Your task to perform on an android device: toggle location history Image 0: 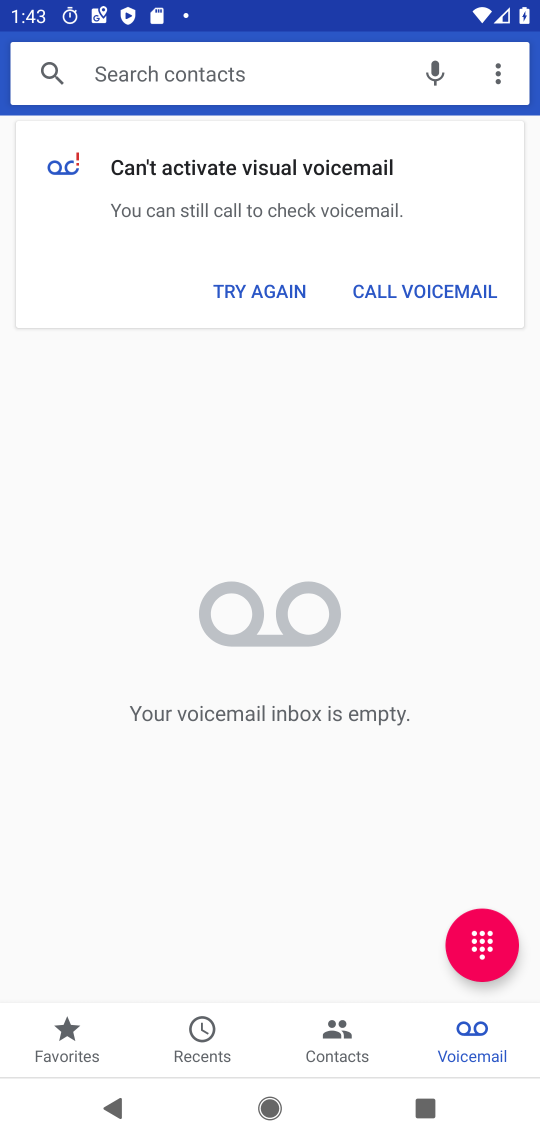
Step 0: press home button
Your task to perform on an android device: toggle location history Image 1: 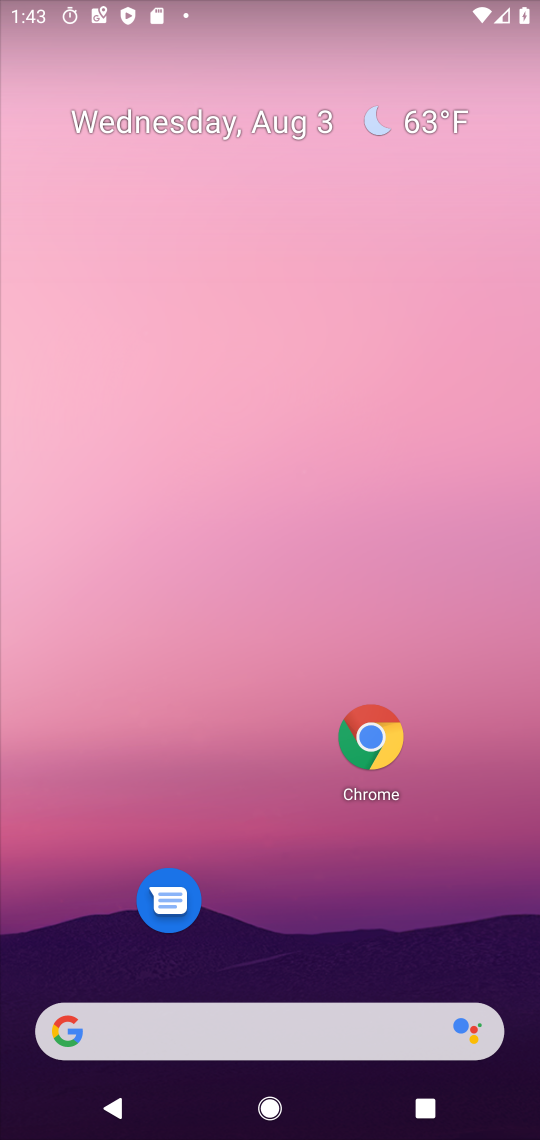
Step 1: drag from (238, 904) to (322, 191)
Your task to perform on an android device: toggle location history Image 2: 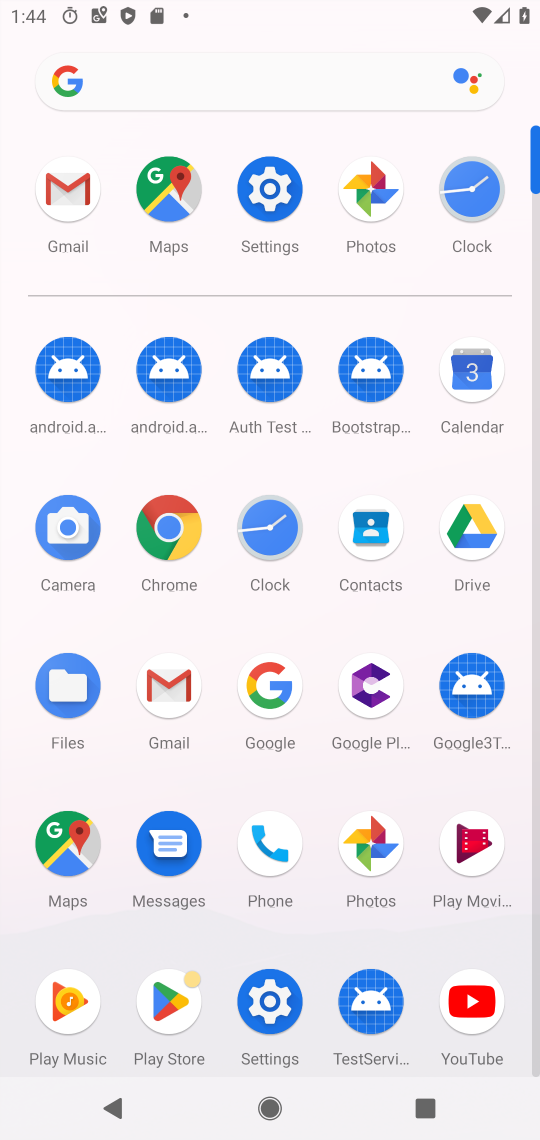
Step 2: click (286, 202)
Your task to perform on an android device: toggle location history Image 3: 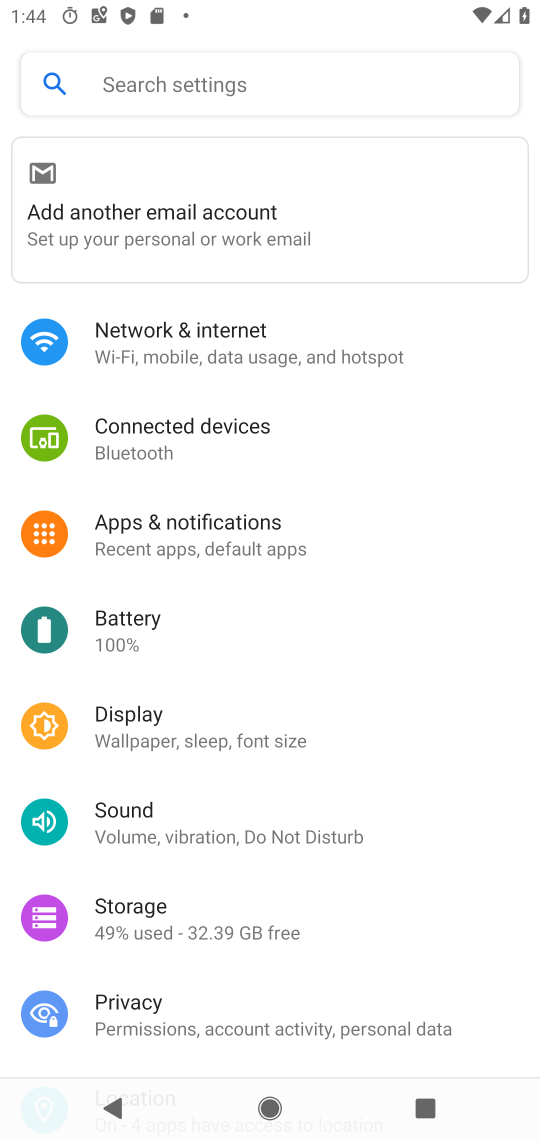
Step 3: drag from (424, 996) to (439, 354)
Your task to perform on an android device: toggle location history Image 4: 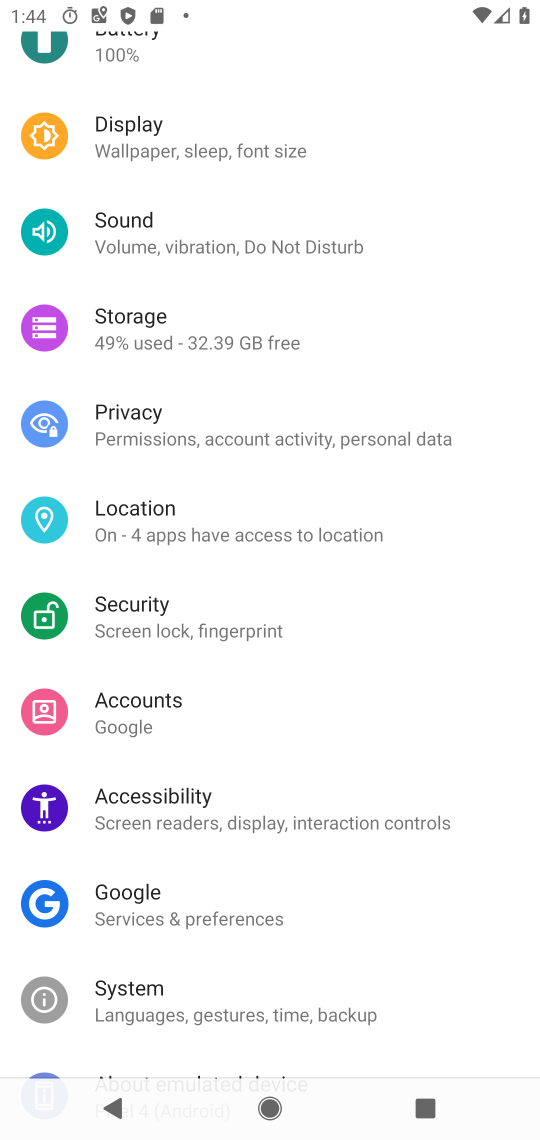
Step 4: click (206, 535)
Your task to perform on an android device: toggle location history Image 5: 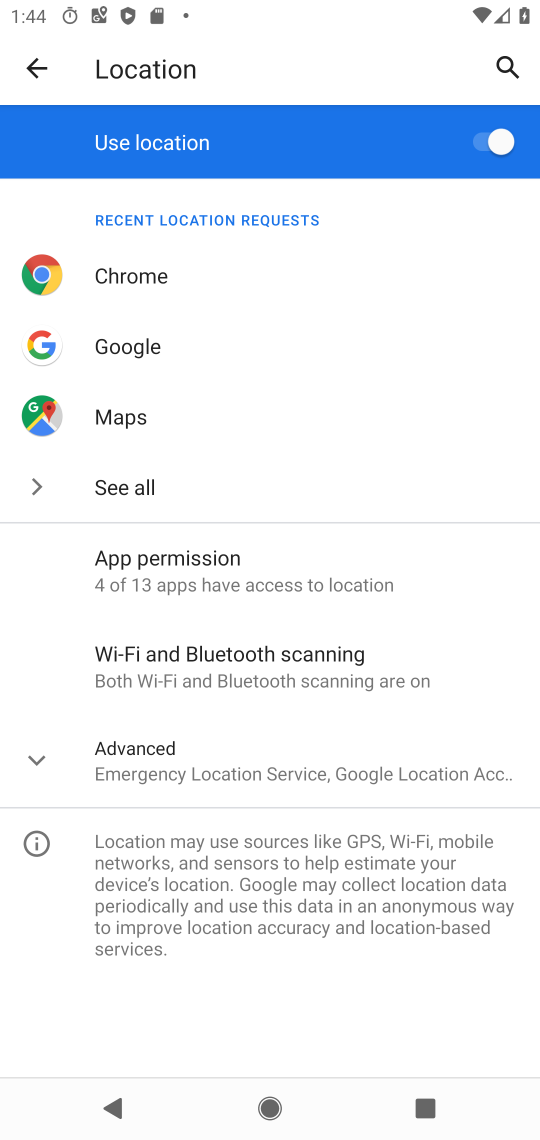
Step 5: click (218, 759)
Your task to perform on an android device: toggle location history Image 6: 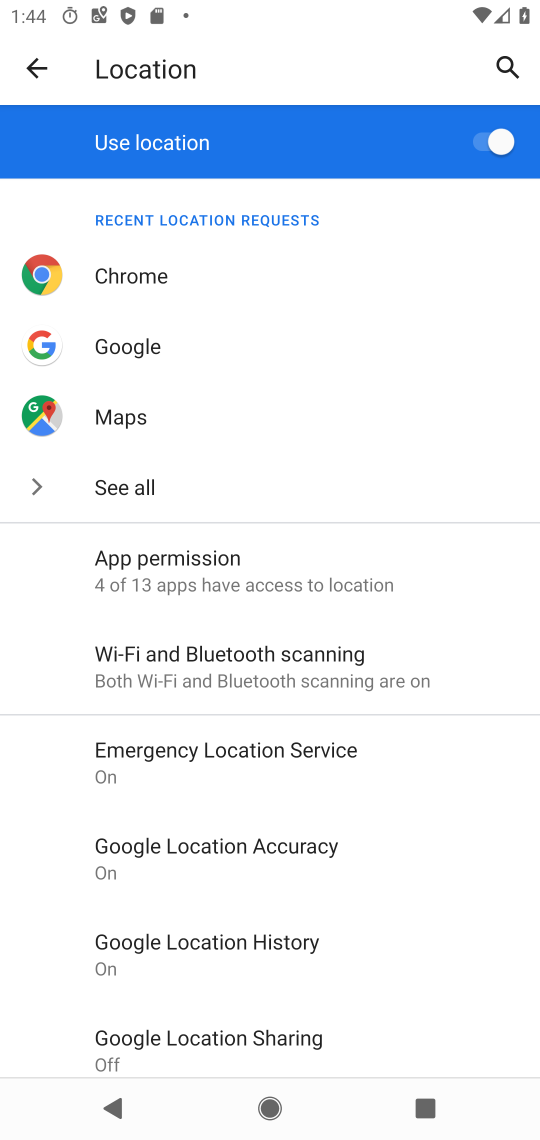
Step 6: click (288, 934)
Your task to perform on an android device: toggle location history Image 7: 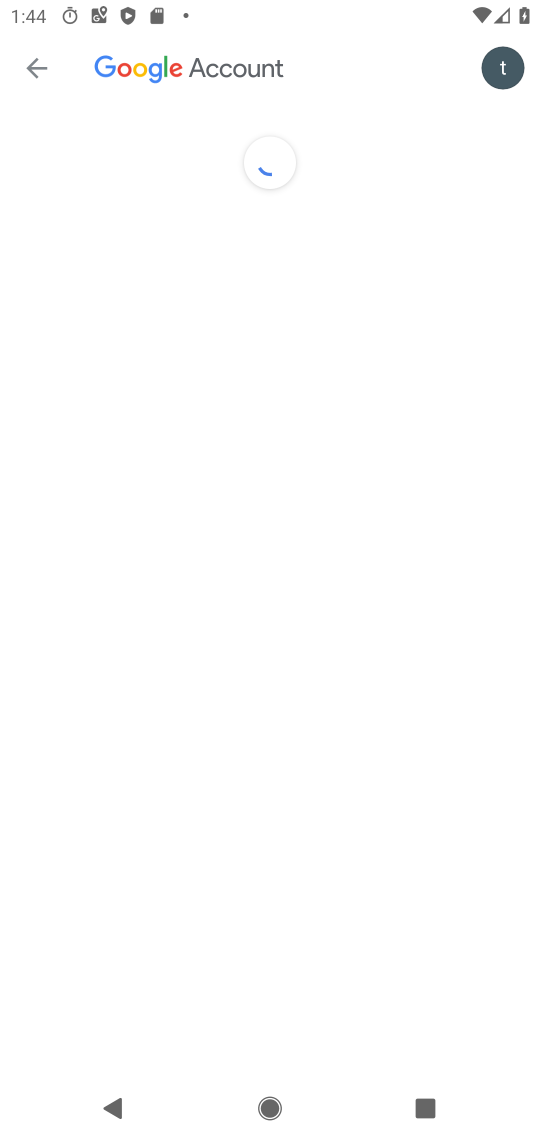
Step 7: click (324, 654)
Your task to perform on an android device: toggle location history Image 8: 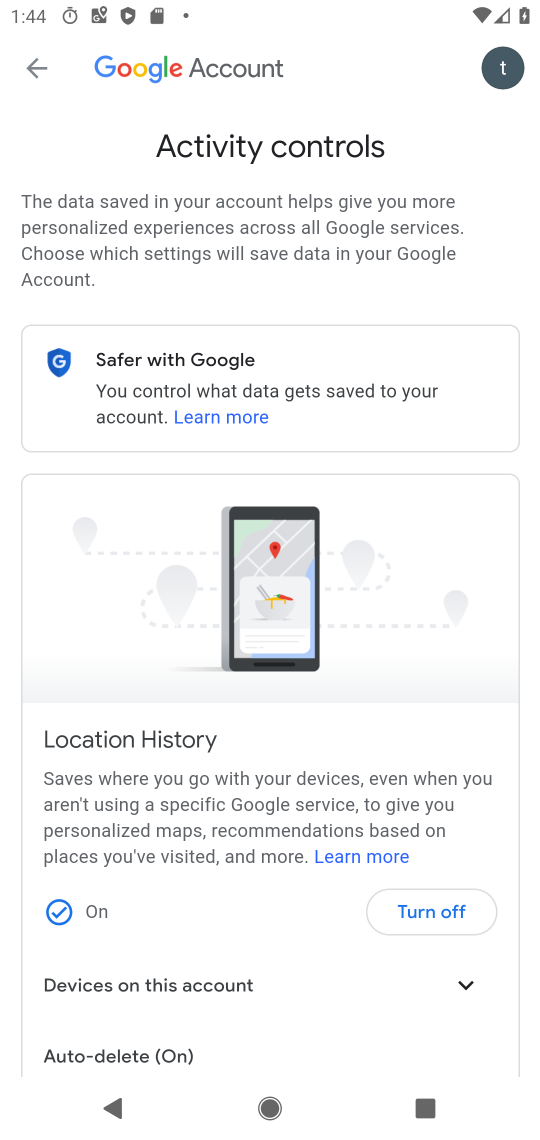
Step 8: click (443, 912)
Your task to perform on an android device: toggle location history Image 9: 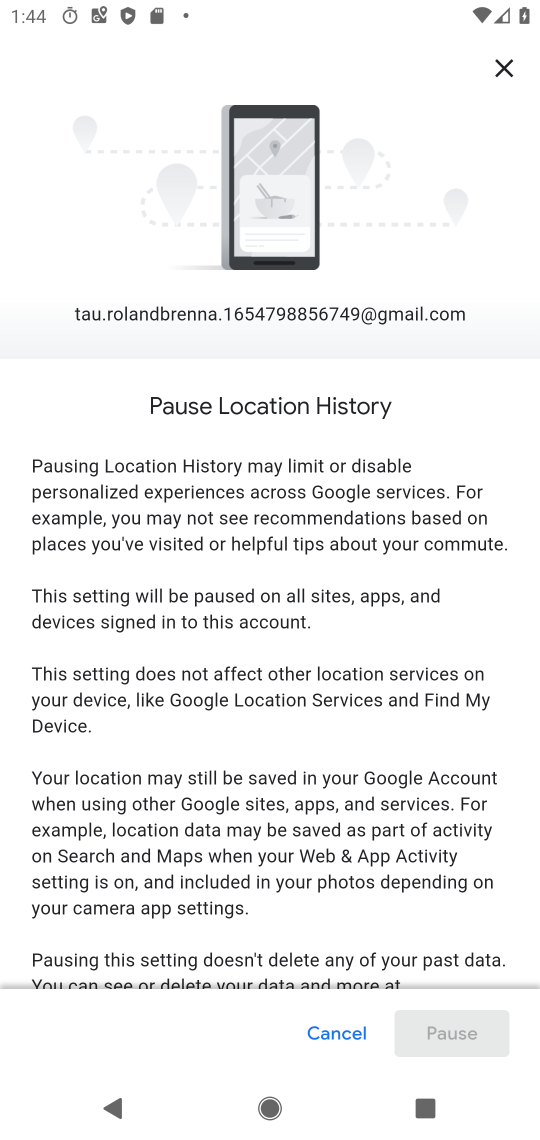
Step 9: drag from (387, 825) to (403, 212)
Your task to perform on an android device: toggle location history Image 10: 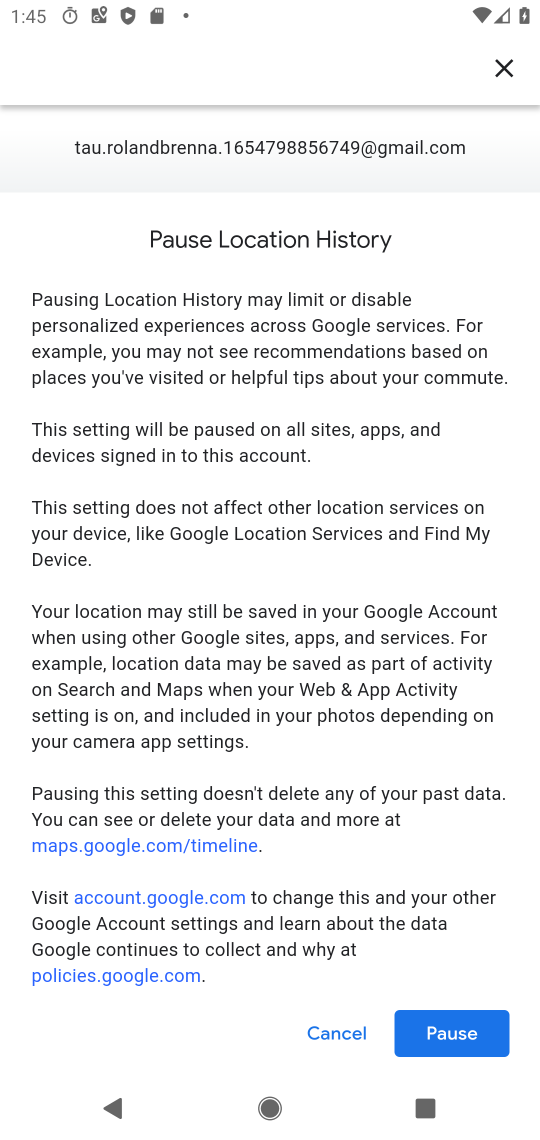
Step 10: click (446, 1016)
Your task to perform on an android device: toggle location history Image 11: 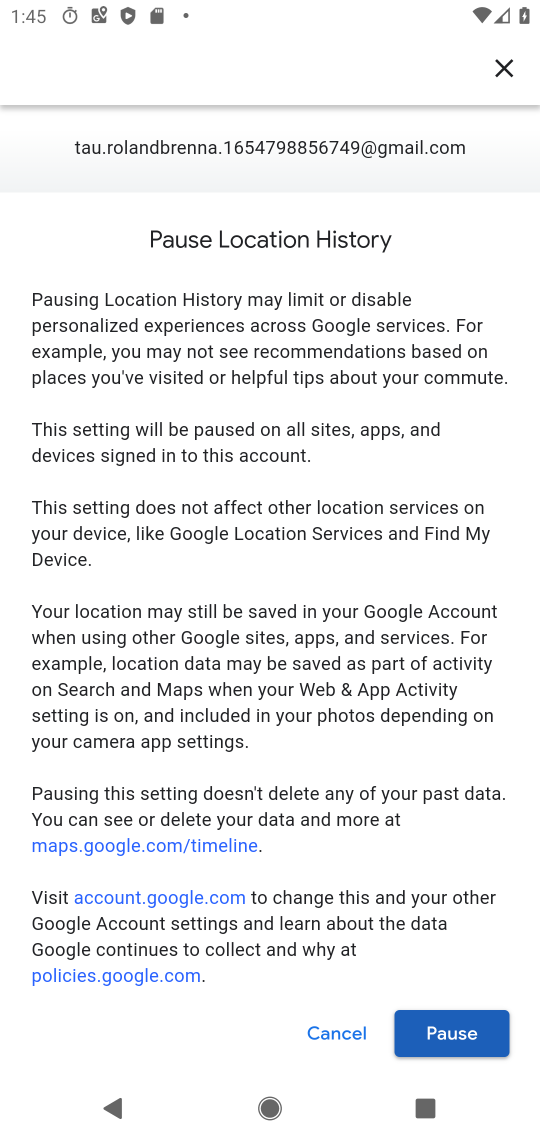
Step 11: click (454, 1039)
Your task to perform on an android device: toggle location history Image 12: 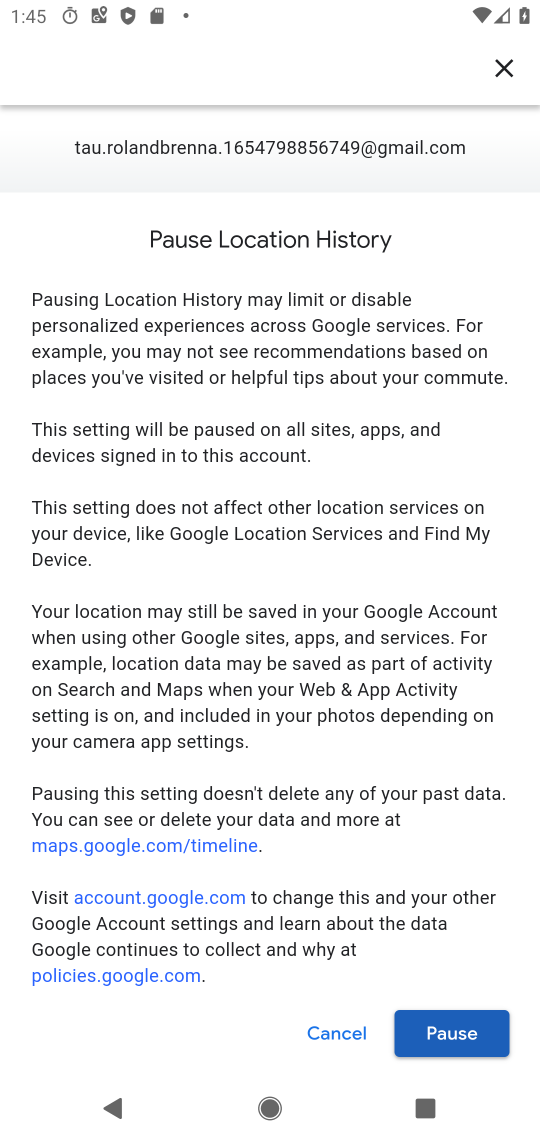
Step 12: click (456, 1034)
Your task to perform on an android device: toggle location history Image 13: 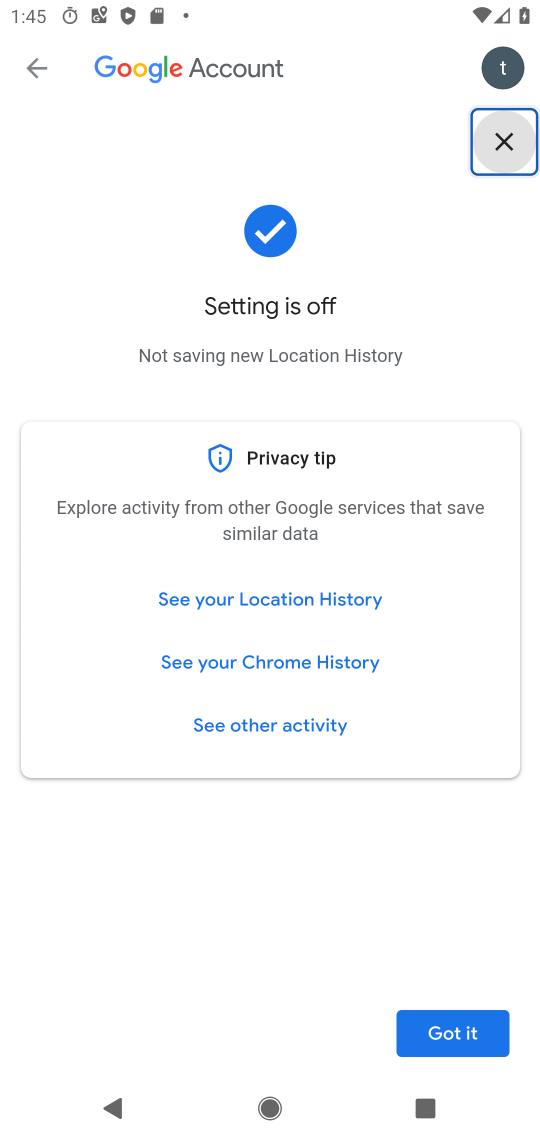
Step 13: task complete